Your task to perform on an android device: Play the last video I watched on Youtube Image 0: 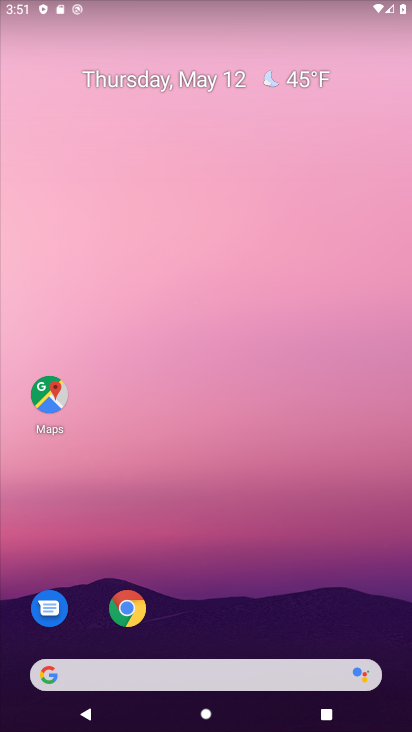
Step 0: drag from (288, 618) to (120, 119)
Your task to perform on an android device: Play the last video I watched on Youtube Image 1: 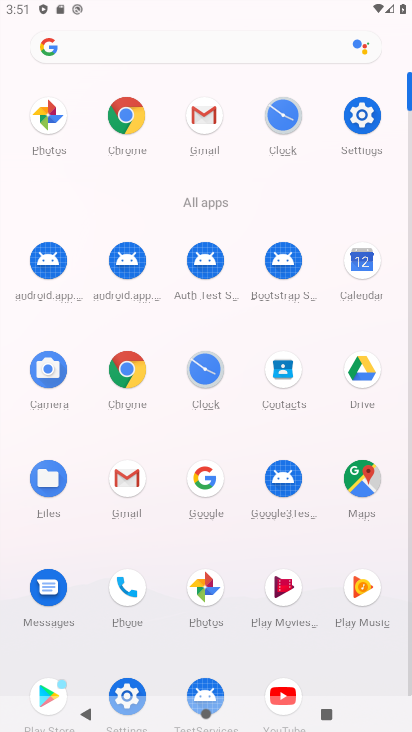
Step 1: click (287, 676)
Your task to perform on an android device: Play the last video I watched on Youtube Image 2: 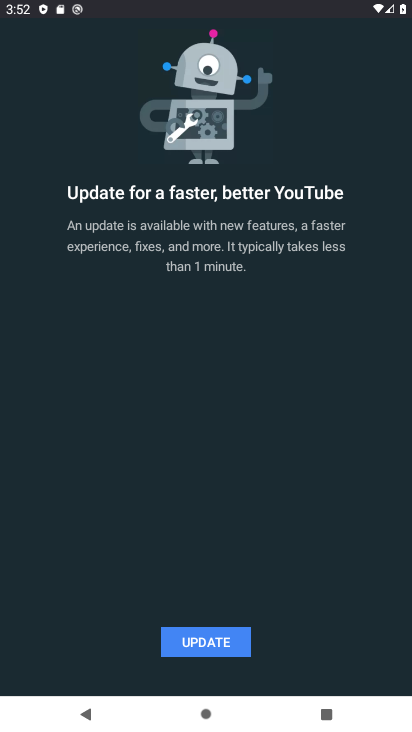
Step 2: click (209, 647)
Your task to perform on an android device: Play the last video I watched on Youtube Image 3: 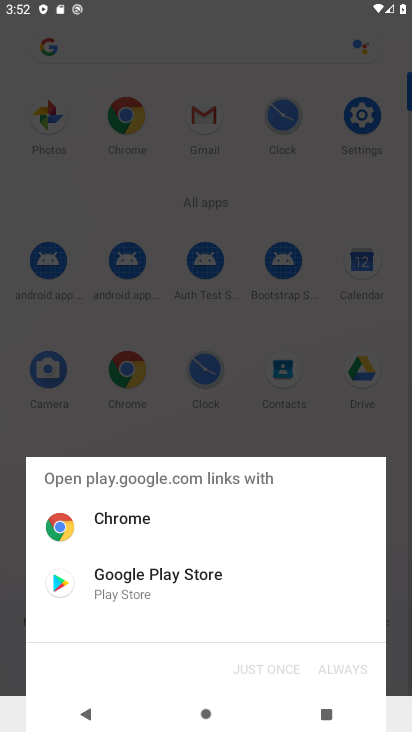
Step 3: click (171, 597)
Your task to perform on an android device: Play the last video I watched on Youtube Image 4: 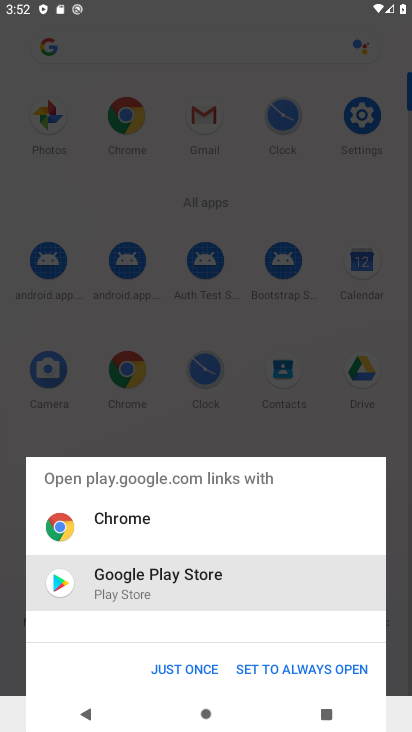
Step 4: click (189, 673)
Your task to perform on an android device: Play the last video I watched on Youtube Image 5: 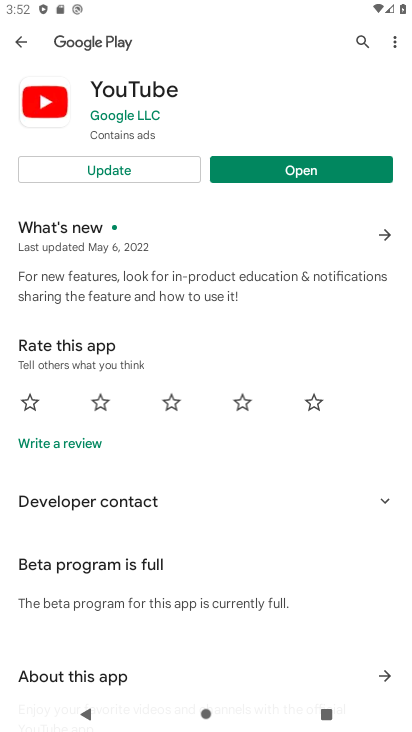
Step 5: click (113, 176)
Your task to perform on an android device: Play the last video I watched on Youtube Image 6: 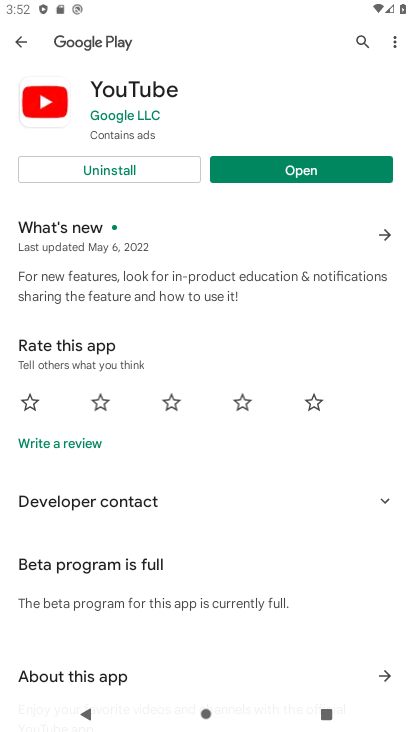
Step 6: click (281, 169)
Your task to perform on an android device: Play the last video I watched on Youtube Image 7: 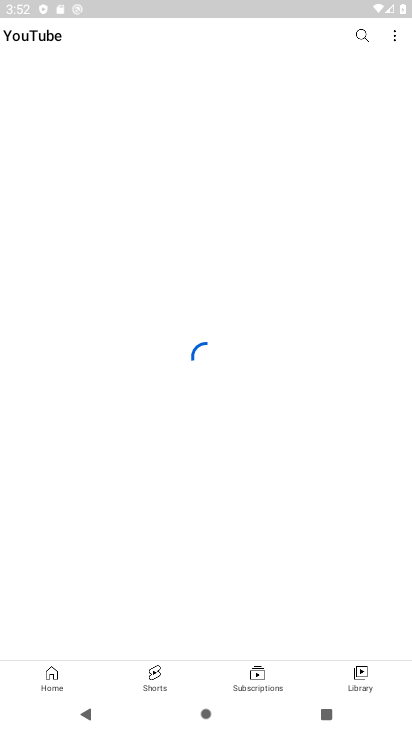
Step 7: click (357, 675)
Your task to perform on an android device: Play the last video I watched on Youtube Image 8: 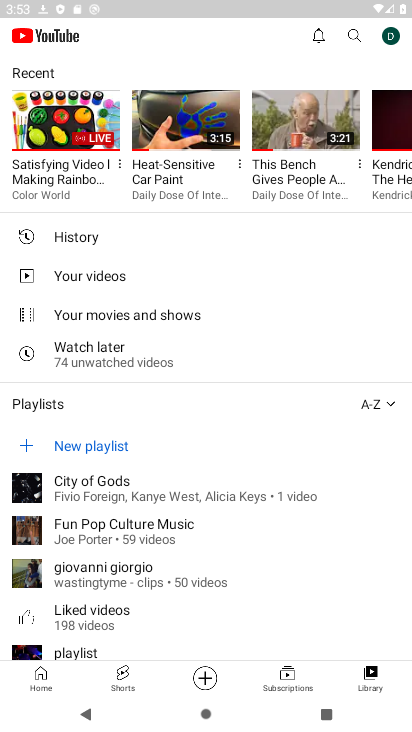
Step 8: click (96, 175)
Your task to perform on an android device: Play the last video I watched on Youtube Image 9: 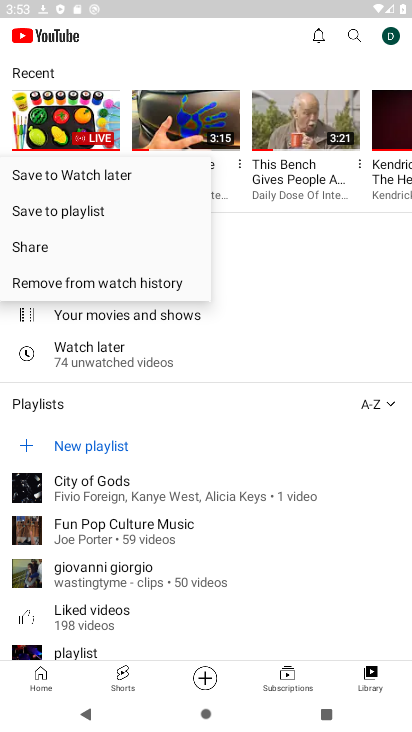
Step 9: click (27, 132)
Your task to perform on an android device: Play the last video I watched on Youtube Image 10: 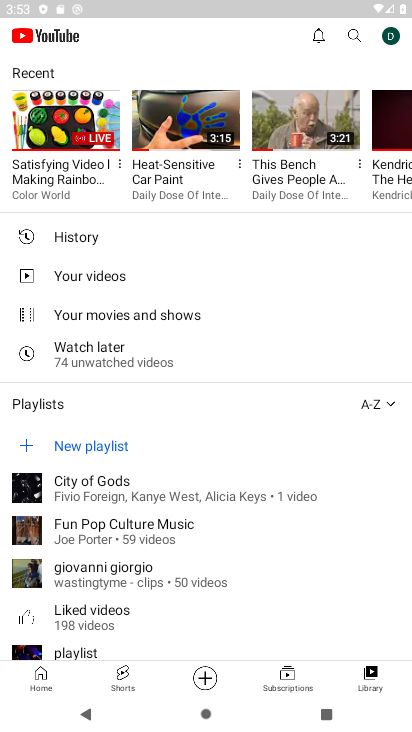
Step 10: click (27, 132)
Your task to perform on an android device: Play the last video I watched on Youtube Image 11: 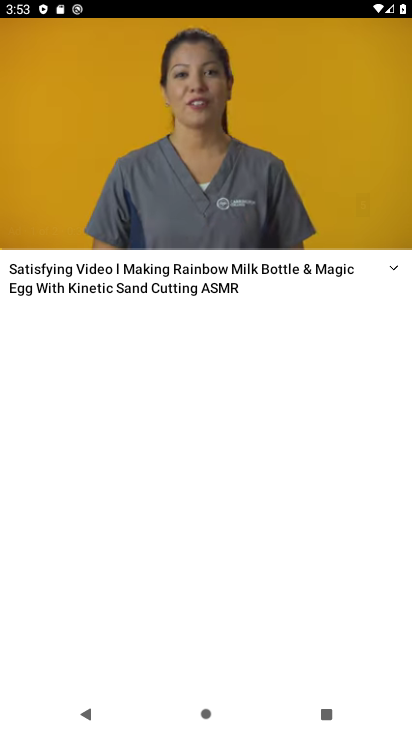
Step 11: task complete